Your task to perform on an android device: Open Google Chrome and click the shortcut for Amazon.com Image 0: 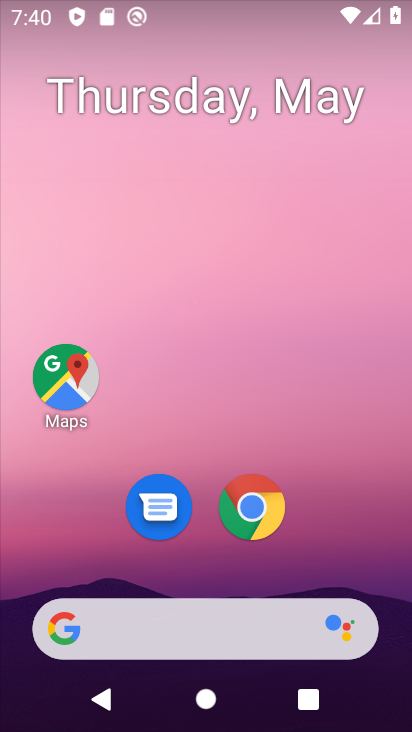
Step 0: drag from (215, 659) to (195, 253)
Your task to perform on an android device: Open Google Chrome and click the shortcut for Amazon.com Image 1: 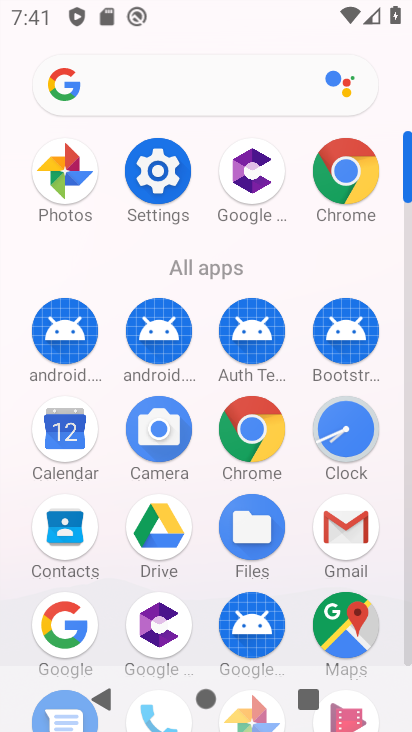
Step 1: click (359, 186)
Your task to perform on an android device: Open Google Chrome and click the shortcut for Amazon.com Image 2: 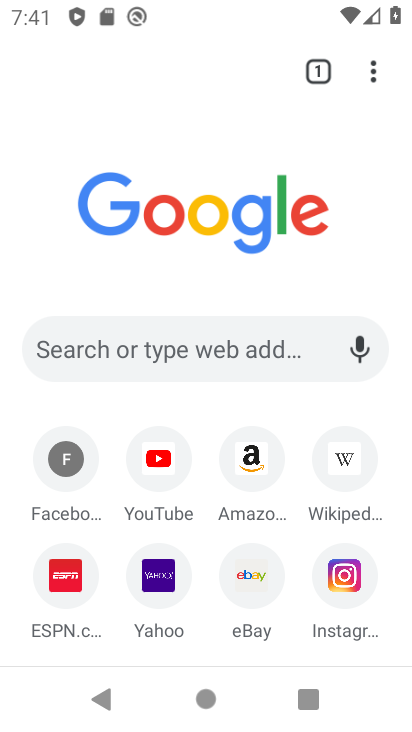
Step 2: click (232, 453)
Your task to perform on an android device: Open Google Chrome and click the shortcut for Amazon.com Image 3: 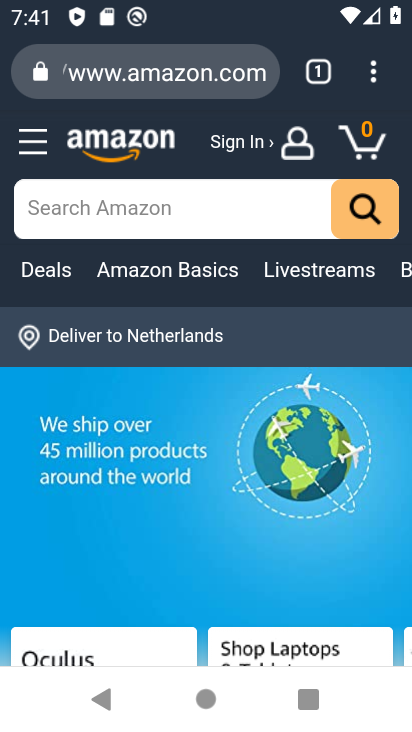
Step 3: click (376, 90)
Your task to perform on an android device: Open Google Chrome and click the shortcut for Amazon.com Image 4: 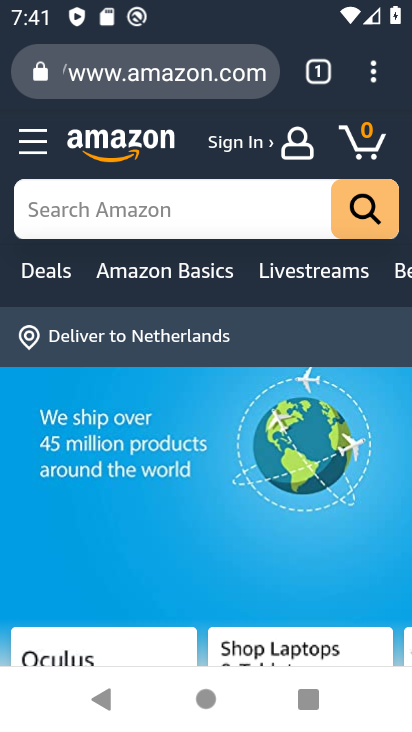
Step 4: click (381, 78)
Your task to perform on an android device: Open Google Chrome and click the shortcut for Amazon.com Image 5: 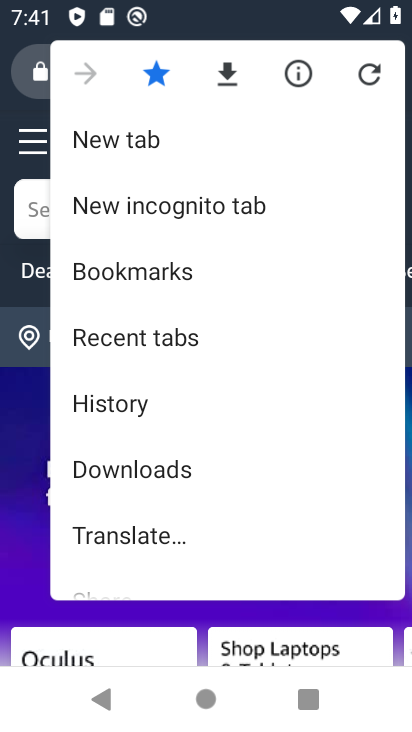
Step 5: drag from (201, 480) to (188, 335)
Your task to perform on an android device: Open Google Chrome and click the shortcut for Amazon.com Image 6: 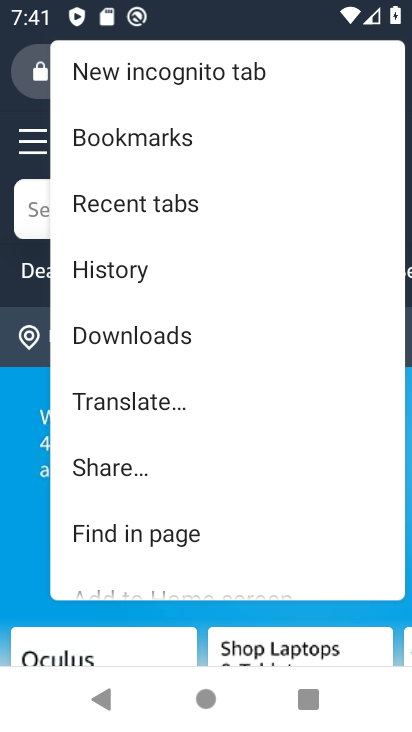
Step 6: drag from (172, 496) to (164, 412)
Your task to perform on an android device: Open Google Chrome and click the shortcut for Amazon.com Image 7: 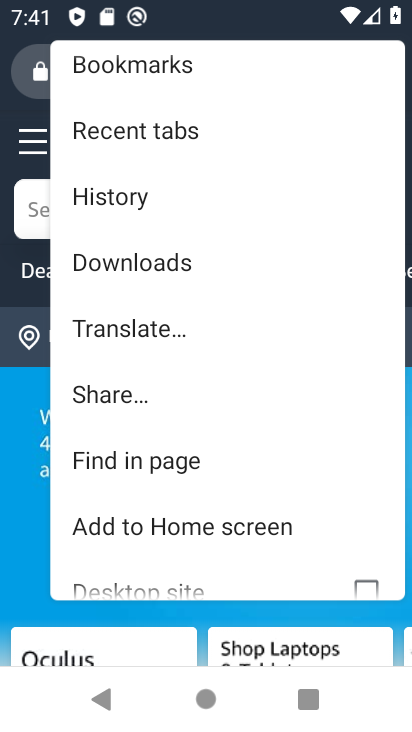
Step 7: click (179, 529)
Your task to perform on an android device: Open Google Chrome and click the shortcut for Amazon.com Image 8: 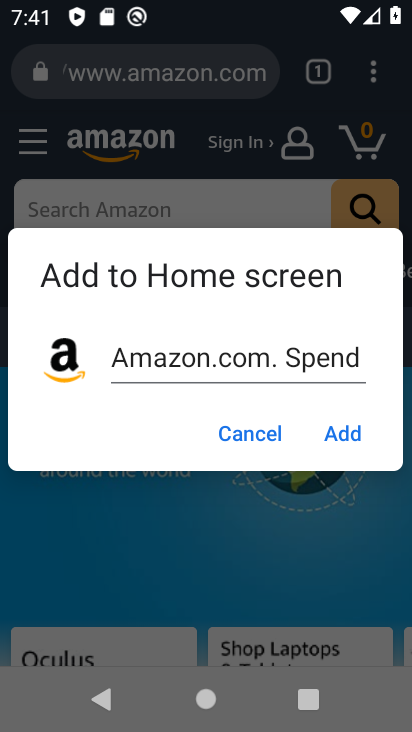
Step 8: click (355, 433)
Your task to perform on an android device: Open Google Chrome and click the shortcut for Amazon.com Image 9: 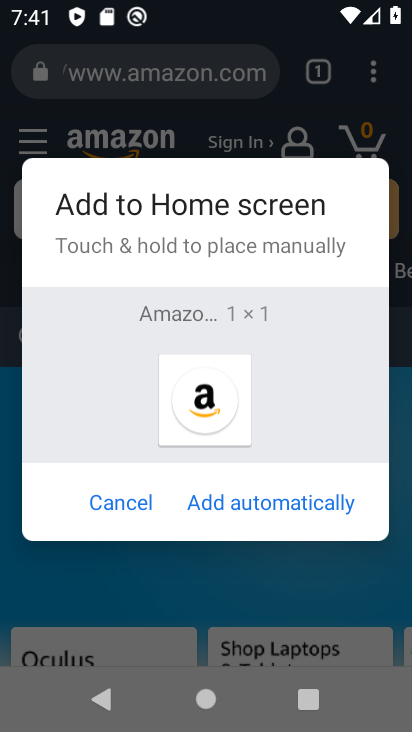
Step 9: click (274, 498)
Your task to perform on an android device: Open Google Chrome and click the shortcut for Amazon.com Image 10: 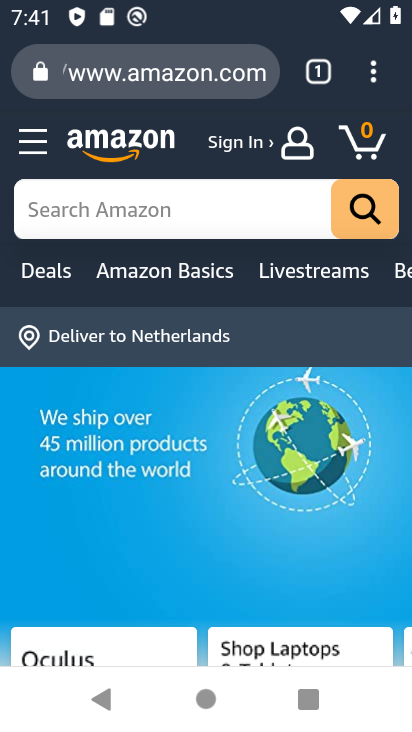
Step 10: task complete